Your task to perform on an android device: Open accessibility settings Image 0: 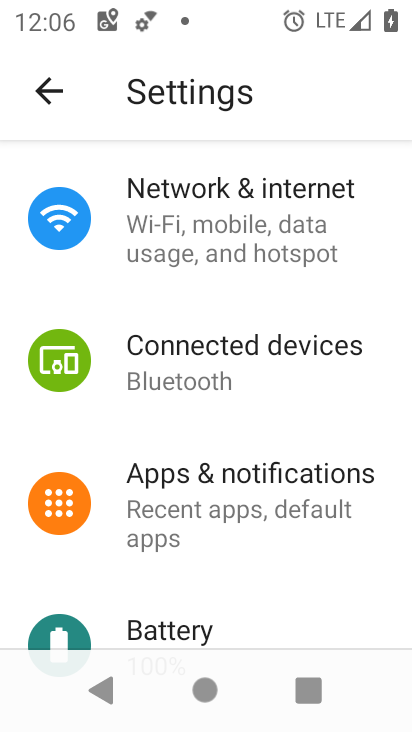
Step 0: drag from (183, 569) to (216, 157)
Your task to perform on an android device: Open accessibility settings Image 1: 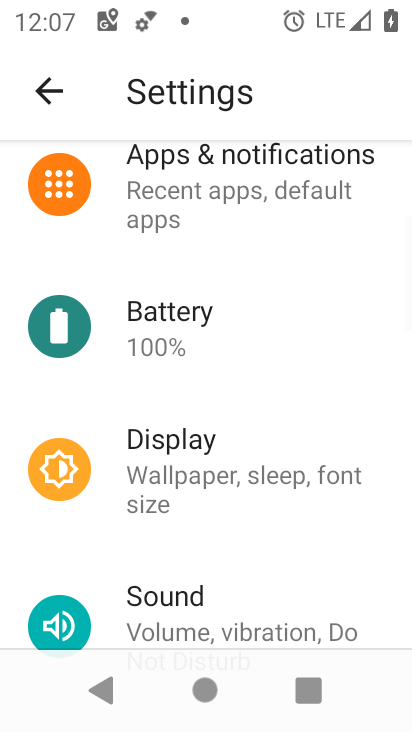
Step 1: drag from (272, 589) to (253, 177)
Your task to perform on an android device: Open accessibility settings Image 2: 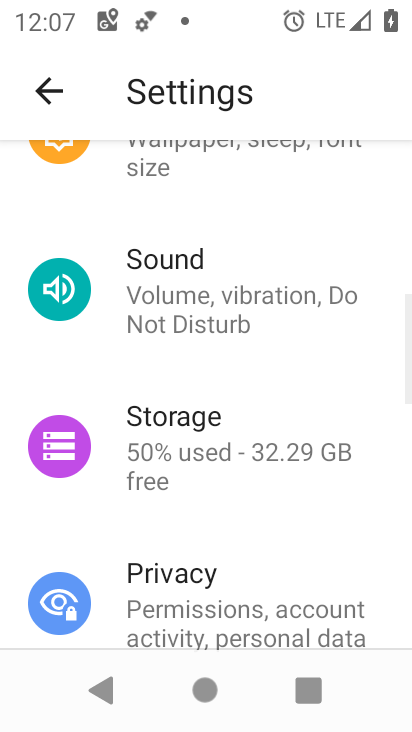
Step 2: drag from (249, 525) to (265, 155)
Your task to perform on an android device: Open accessibility settings Image 3: 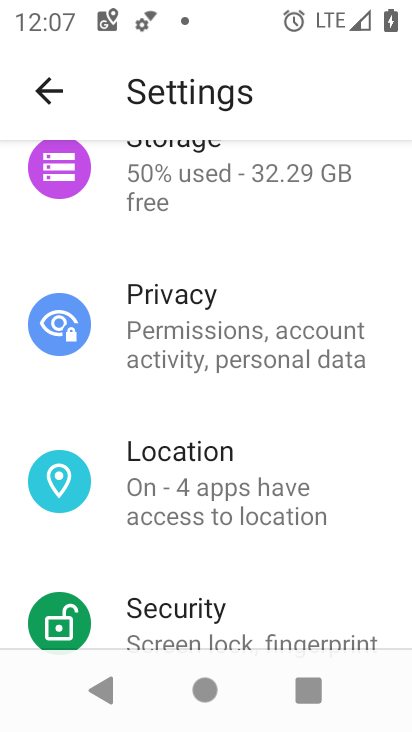
Step 3: drag from (251, 517) to (285, 192)
Your task to perform on an android device: Open accessibility settings Image 4: 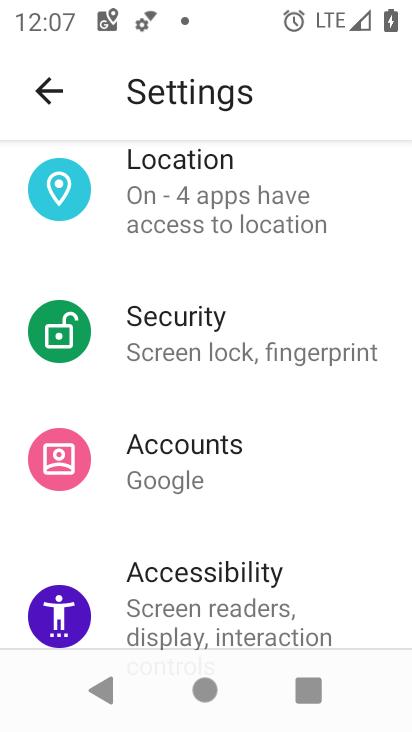
Step 4: click (243, 599)
Your task to perform on an android device: Open accessibility settings Image 5: 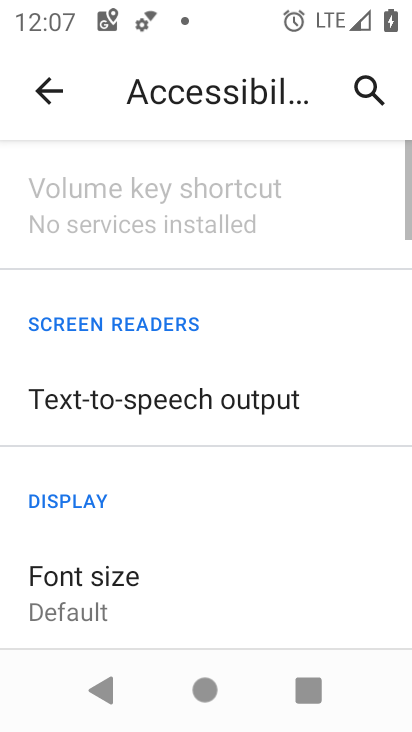
Step 5: task complete